Your task to perform on an android device: Open the web browser Image 0: 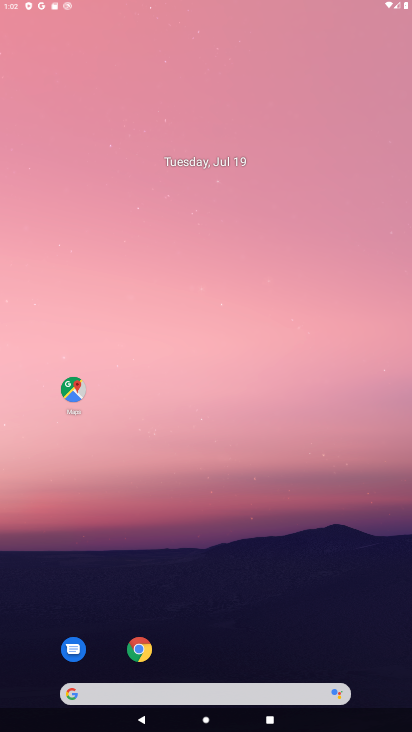
Step 0: press home button
Your task to perform on an android device: Open the web browser Image 1: 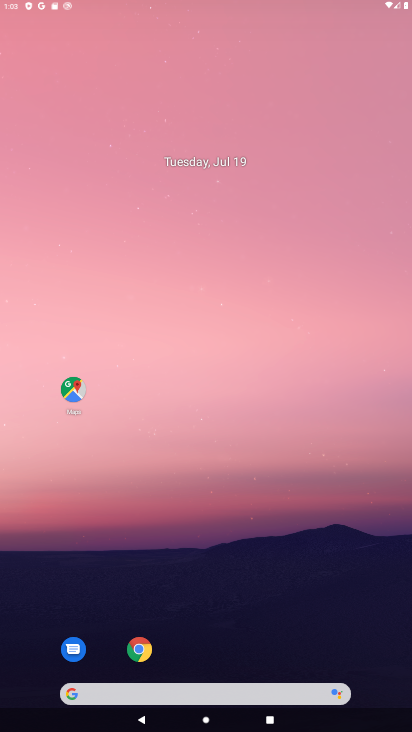
Step 1: drag from (184, 660) to (188, 75)
Your task to perform on an android device: Open the web browser Image 2: 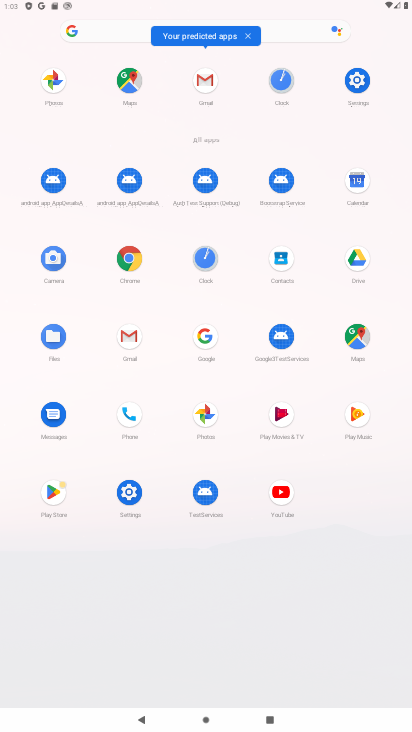
Step 2: click (199, 338)
Your task to perform on an android device: Open the web browser Image 3: 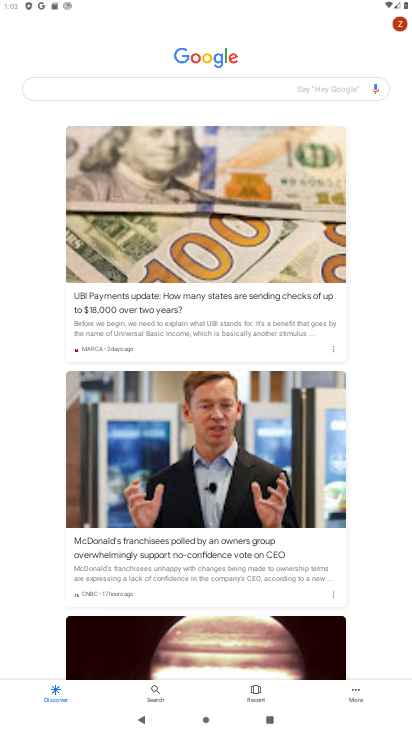
Step 3: click (105, 97)
Your task to perform on an android device: Open the web browser Image 4: 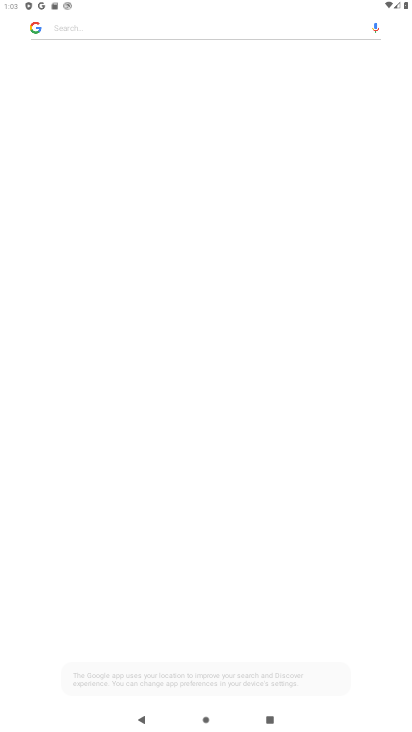
Step 4: task complete